Your task to perform on an android device: What is the news today? Image 0: 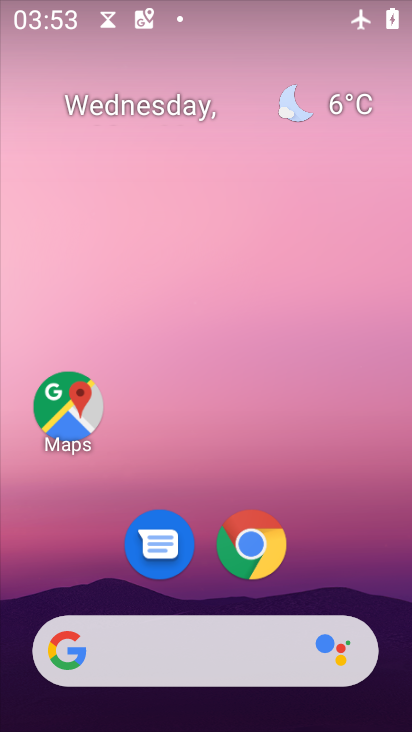
Step 0: drag from (339, 573) to (327, 57)
Your task to perform on an android device: What is the news today? Image 1: 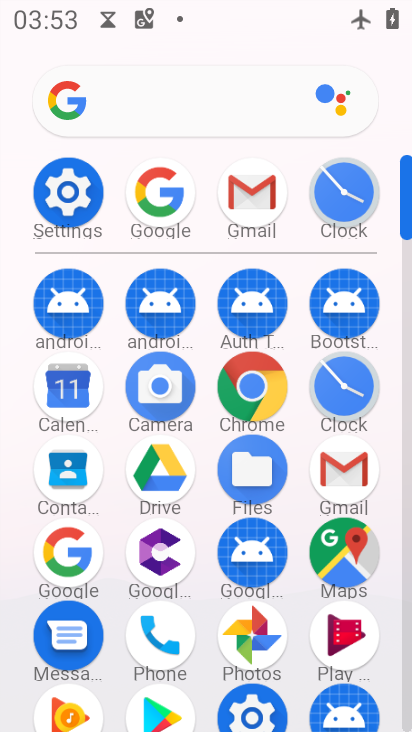
Step 1: click (222, 116)
Your task to perform on an android device: What is the news today? Image 2: 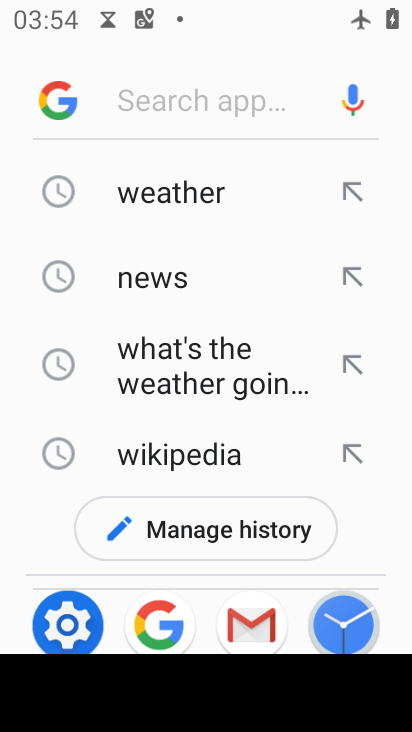
Step 2: type "what is the news today"
Your task to perform on an android device: What is the news today? Image 3: 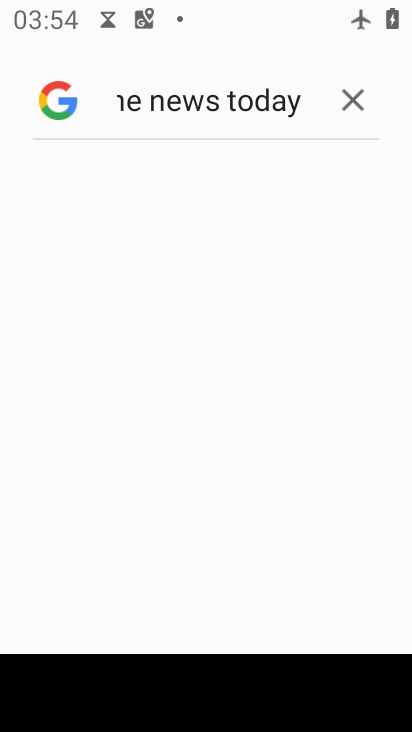
Step 3: task complete